Your task to perform on an android device: Open the web browser Image 0: 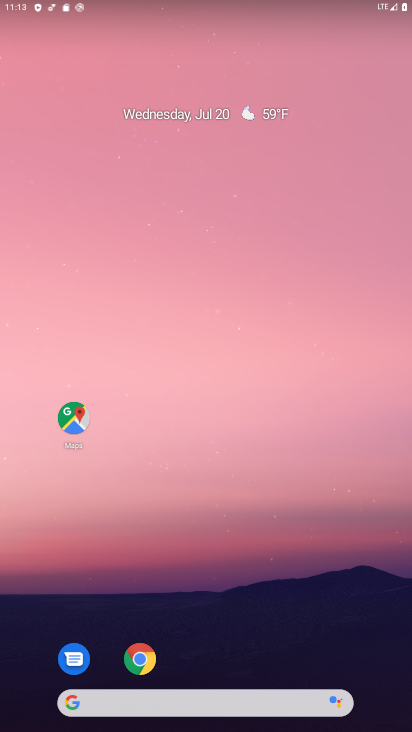
Step 0: click (141, 658)
Your task to perform on an android device: Open the web browser Image 1: 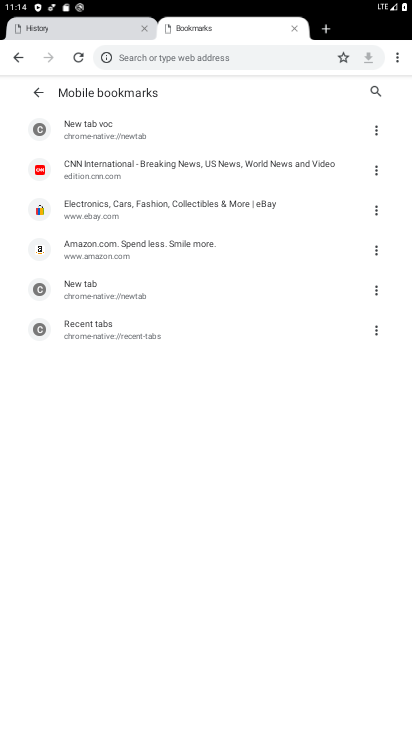
Step 1: task complete